Your task to perform on an android device: check android version Image 0: 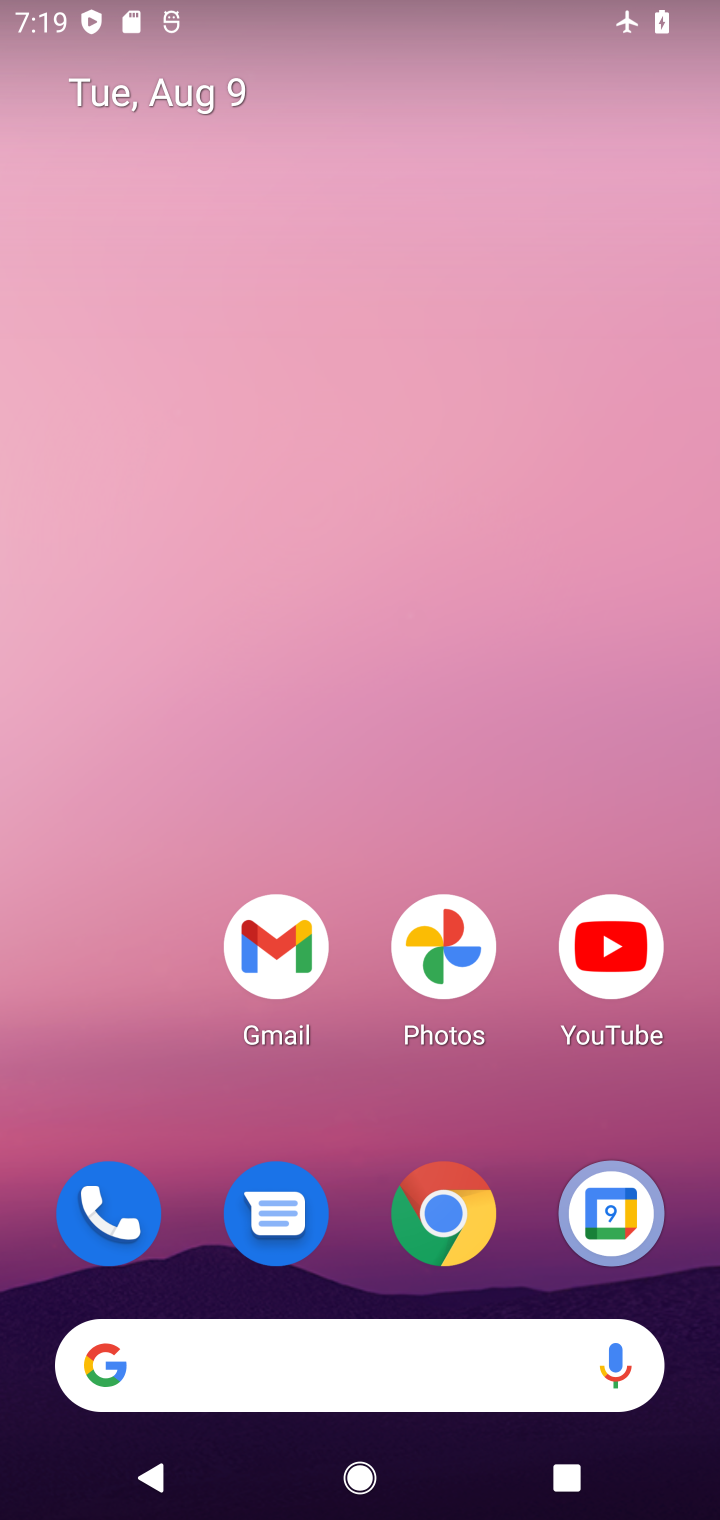
Step 0: drag from (356, 1283) to (370, 381)
Your task to perform on an android device: check android version Image 1: 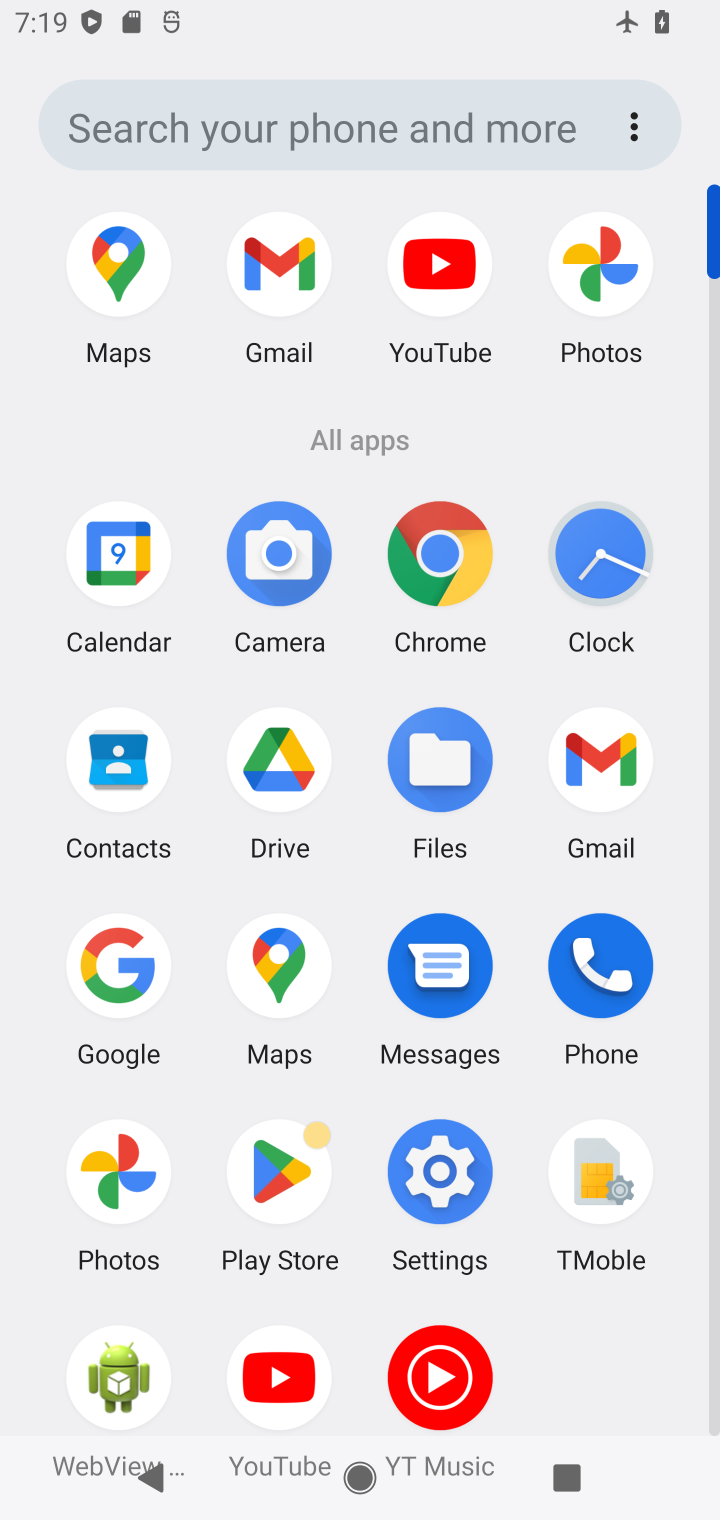
Step 1: click (429, 1148)
Your task to perform on an android device: check android version Image 2: 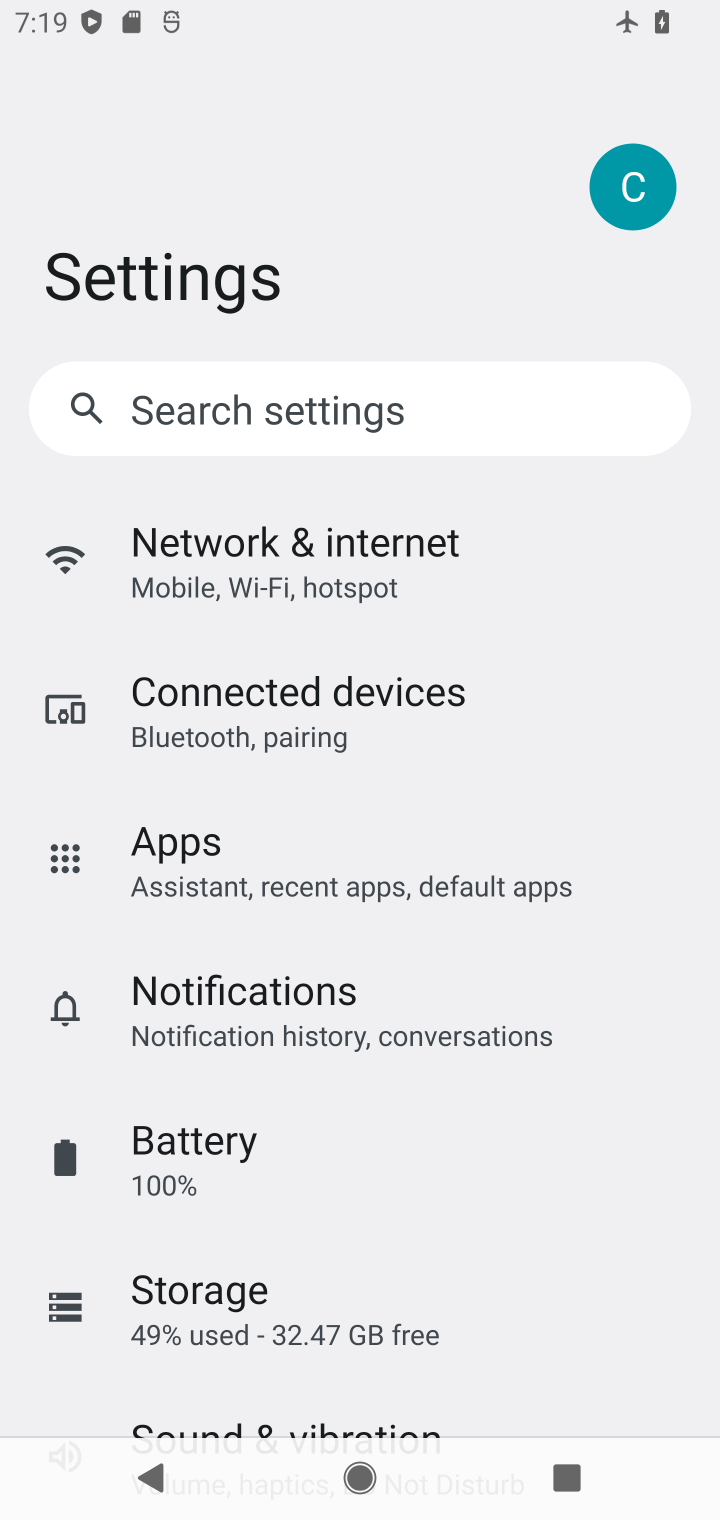
Step 2: drag from (429, 1148) to (438, 235)
Your task to perform on an android device: check android version Image 3: 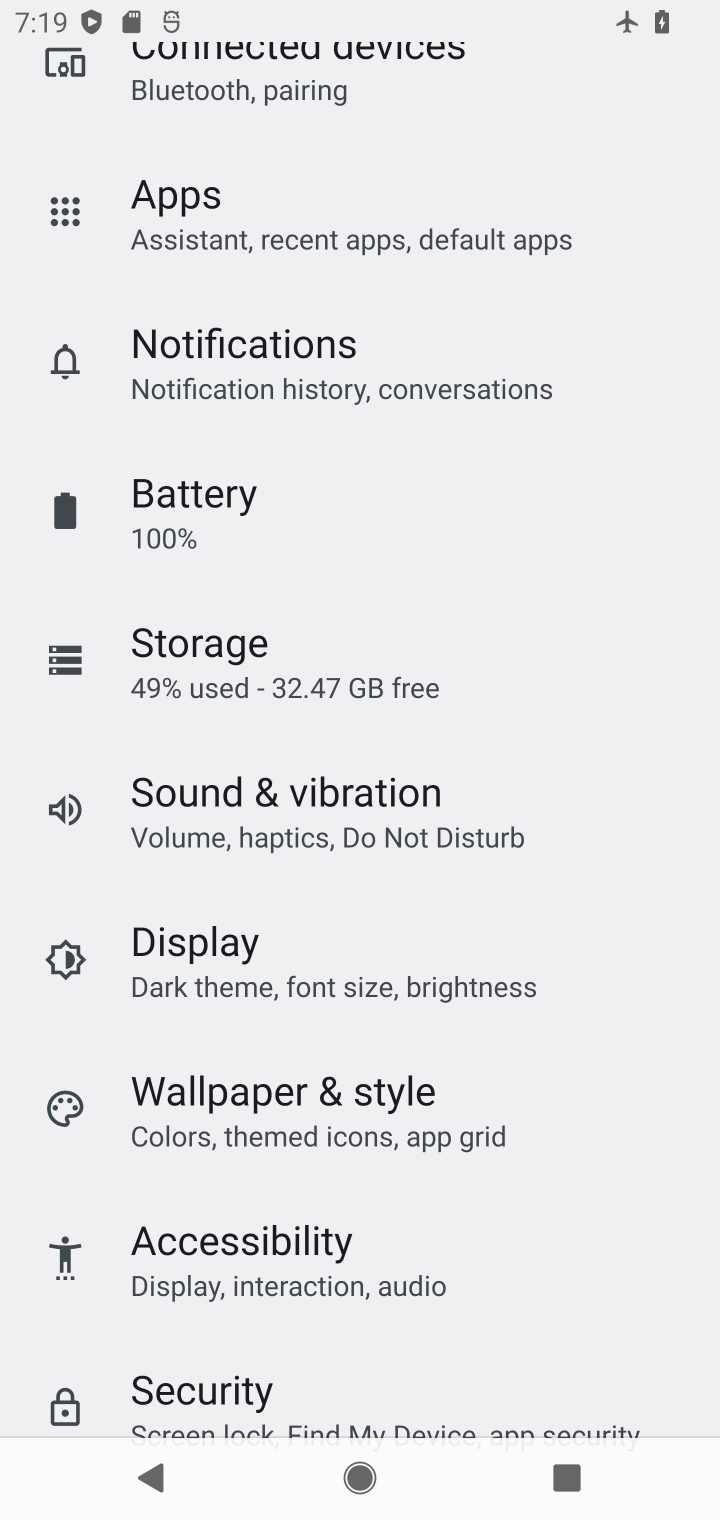
Step 3: drag from (366, 1165) to (310, 400)
Your task to perform on an android device: check android version Image 4: 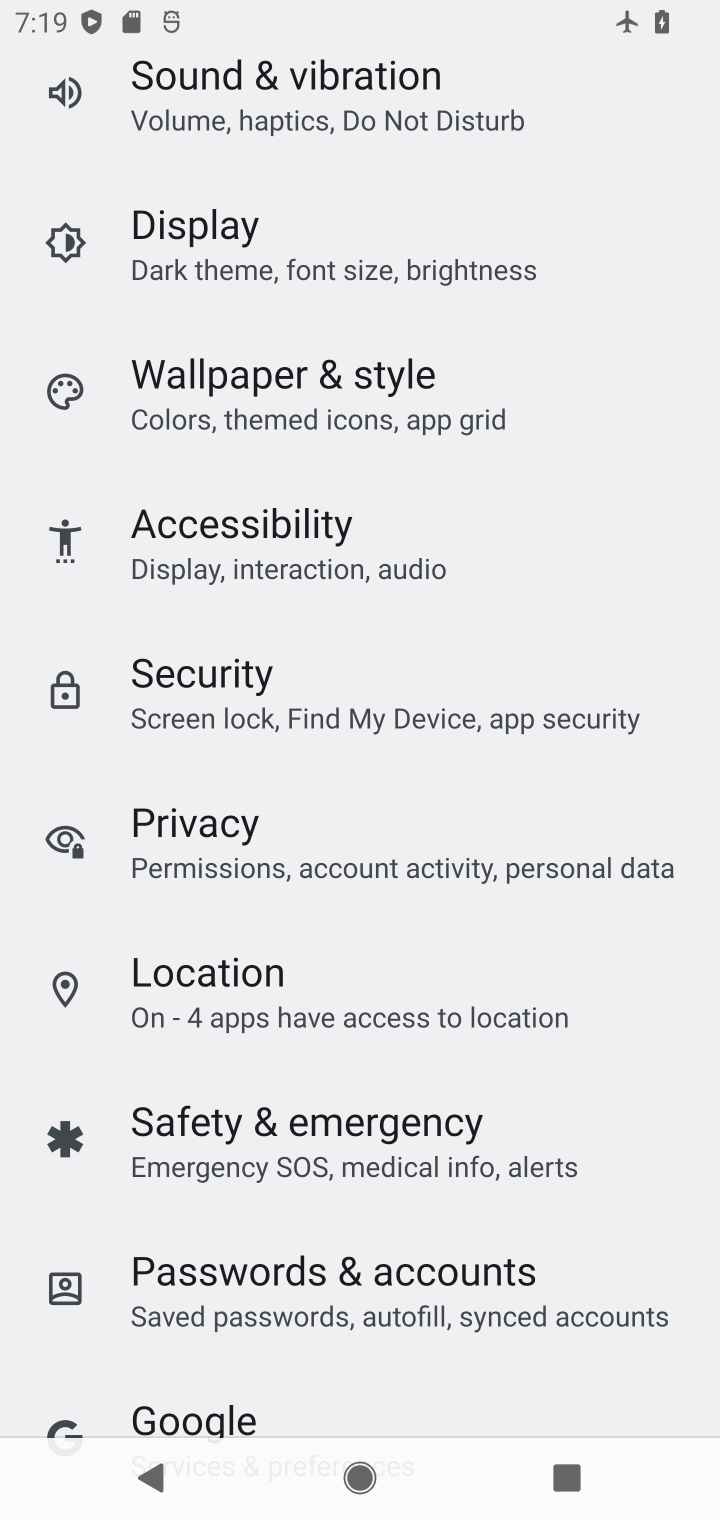
Step 4: drag from (279, 1047) to (232, 141)
Your task to perform on an android device: check android version Image 5: 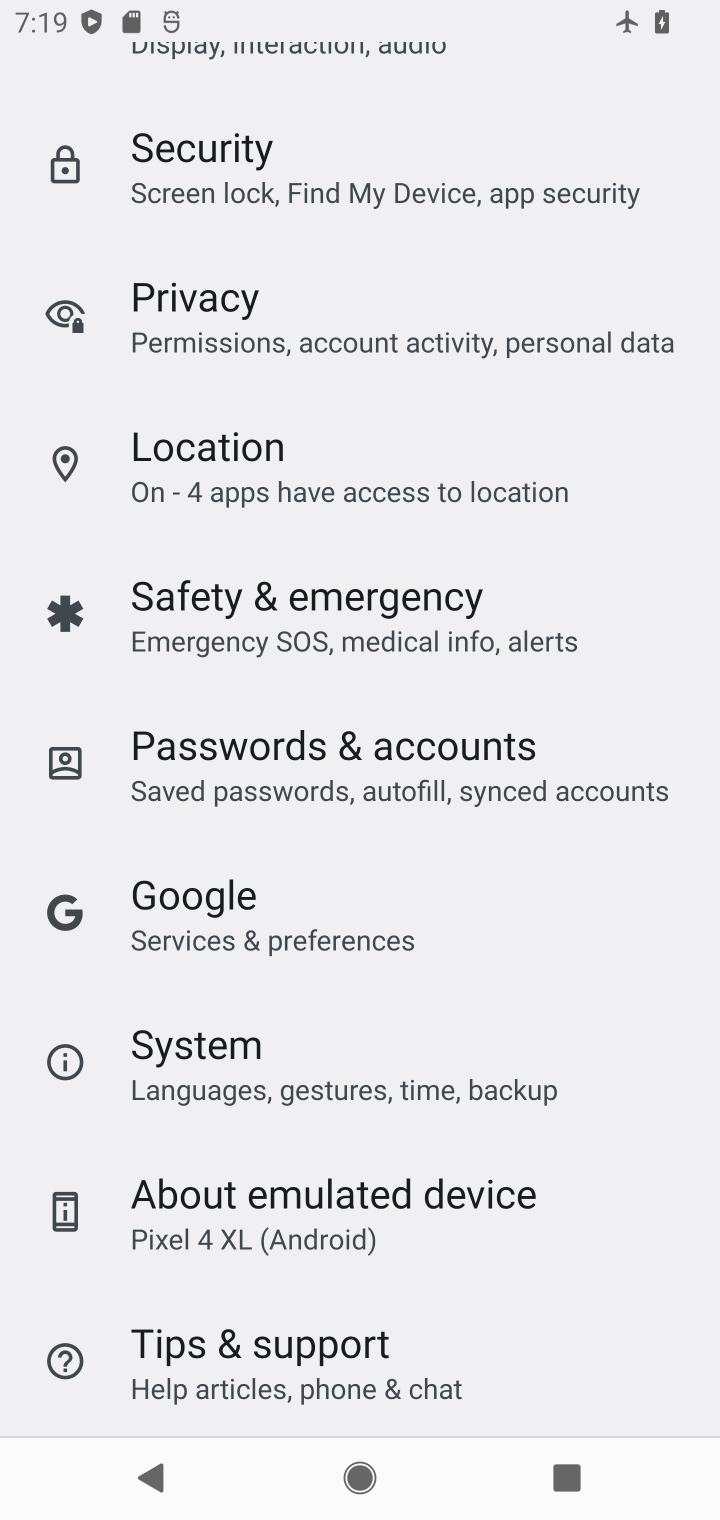
Step 5: drag from (407, 1069) to (407, 244)
Your task to perform on an android device: check android version Image 6: 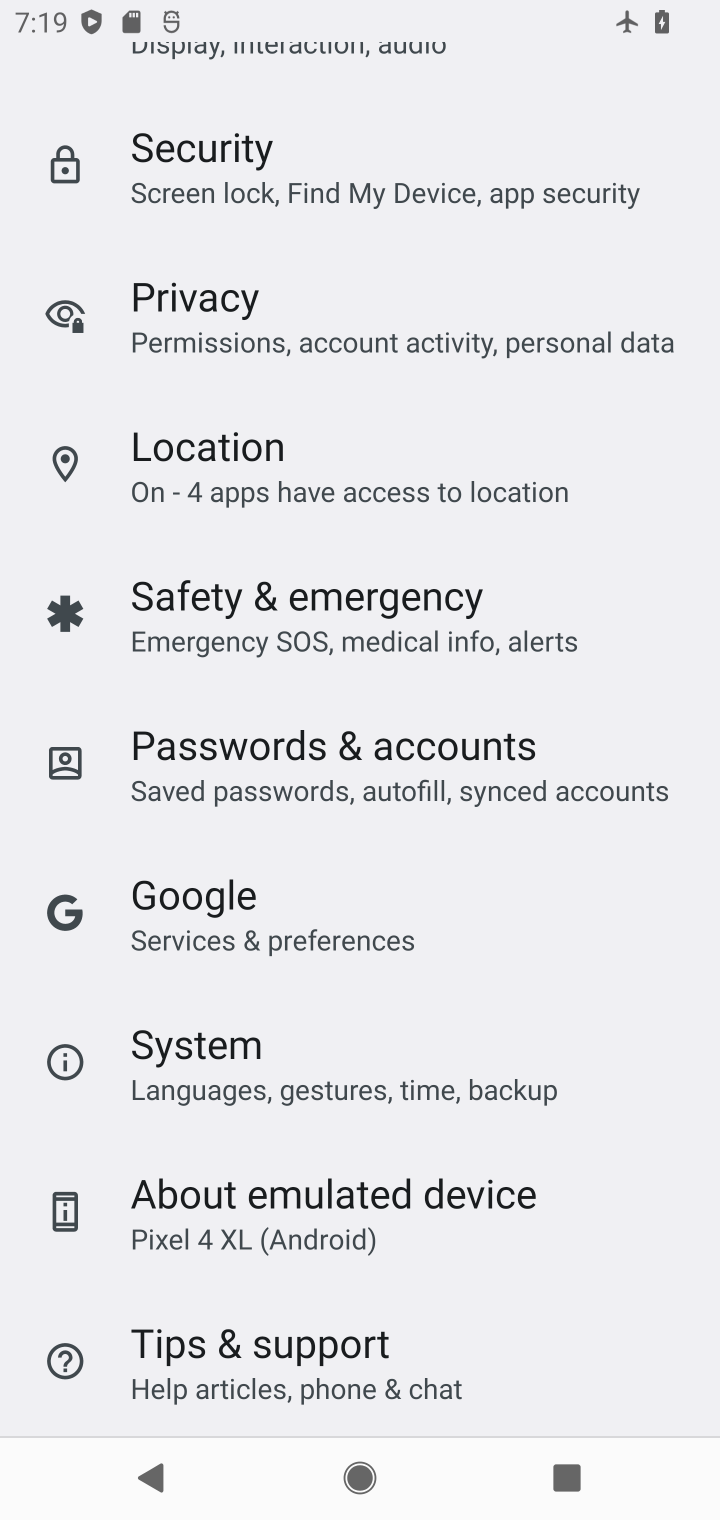
Step 6: click (193, 1237)
Your task to perform on an android device: check android version Image 7: 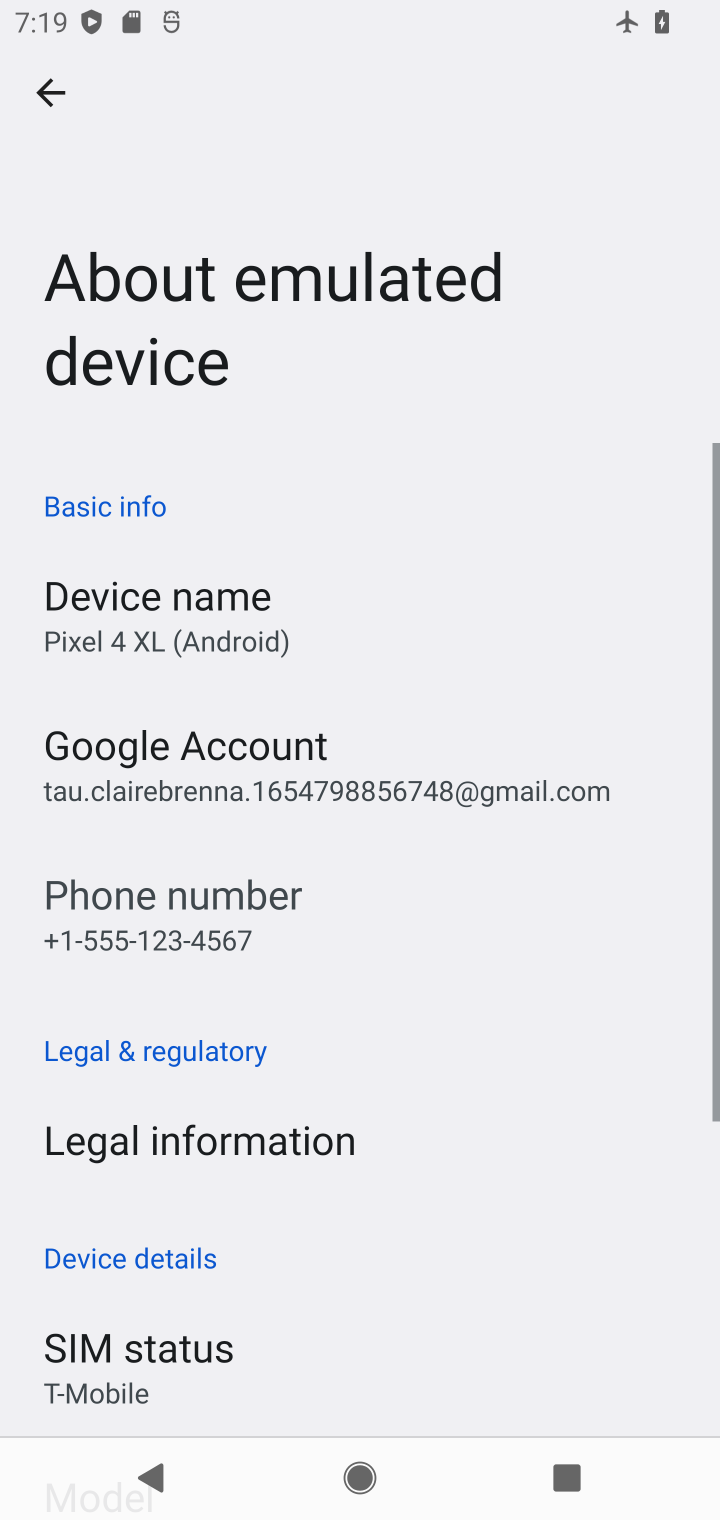
Step 7: task complete